Your task to perform on an android device: check the backup settings in the google photos Image 0: 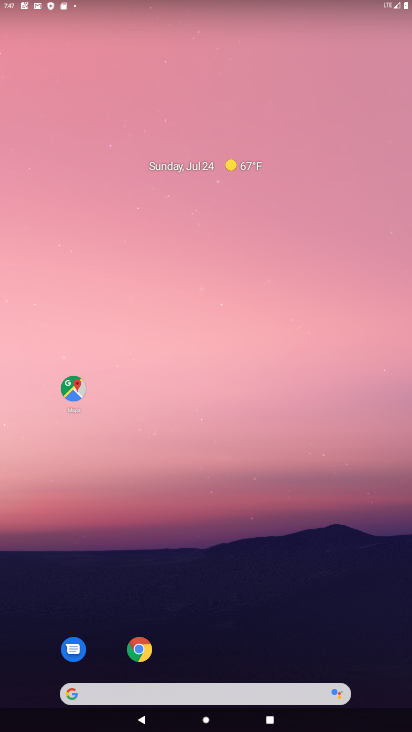
Step 0: drag from (250, 677) to (209, 1)
Your task to perform on an android device: check the backup settings in the google photos Image 1: 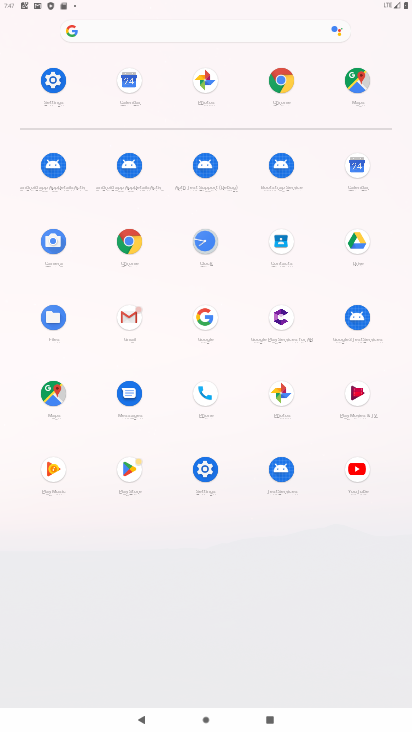
Step 1: click (276, 394)
Your task to perform on an android device: check the backup settings in the google photos Image 2: 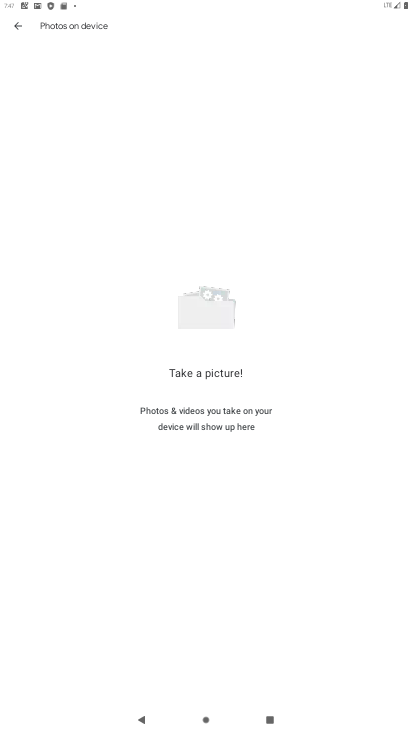
Step 2: click (12, 21)
Your task to perform on an android device: check the backup settings in the google photos Image 3: 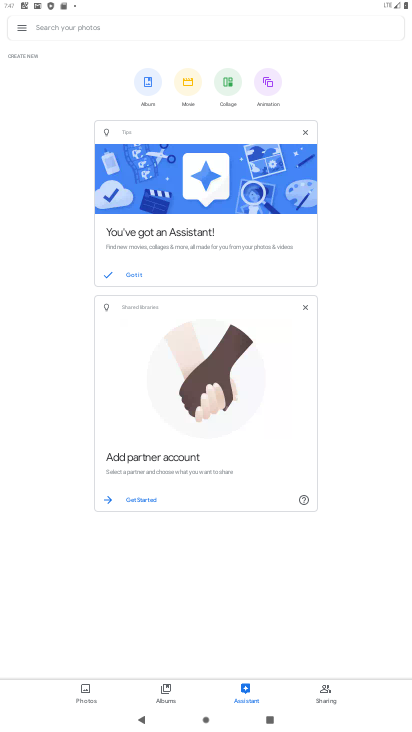
Step 3: click (15, 19)
Your task to perform on an android device: check the backup settings in the google photos Image 4: 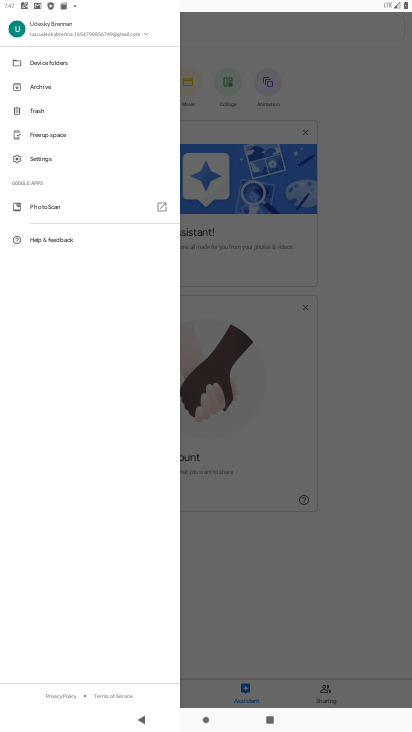
Step 4: click (32, 162)
Your task to perform on an android device: check the backup settings in the google photos Image 5: 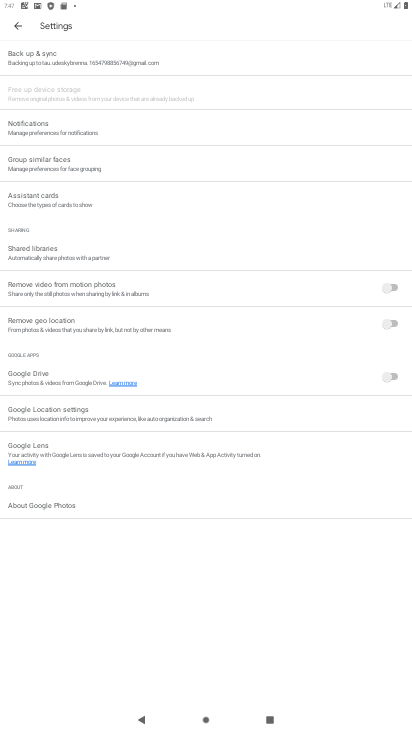
Step 5: click (45, 62)
Your task to perform on an android device: check the backup settings in the google photos Image 6: 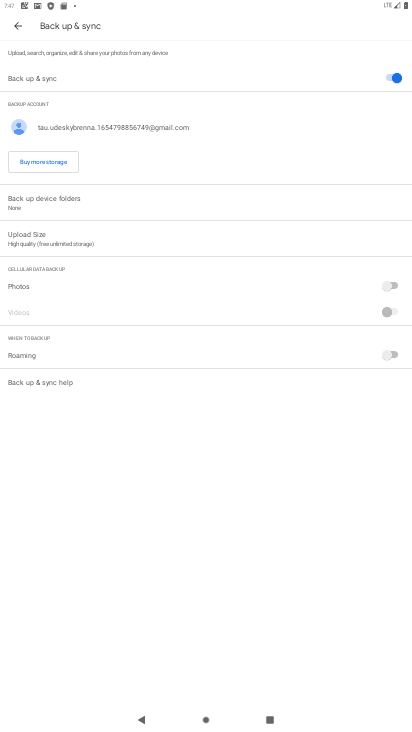
Step 6: task complete